Your task to perform on an android device: Open Google Chrome Image 0: 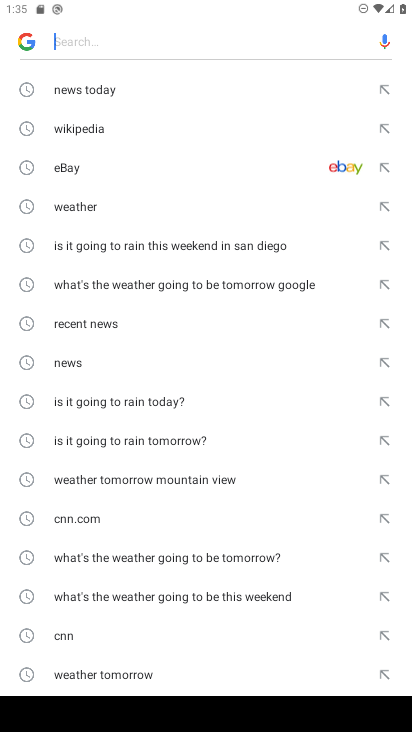
Step 0: press home button
Your task to perform on an android device: Open Google Chrome Image 1: 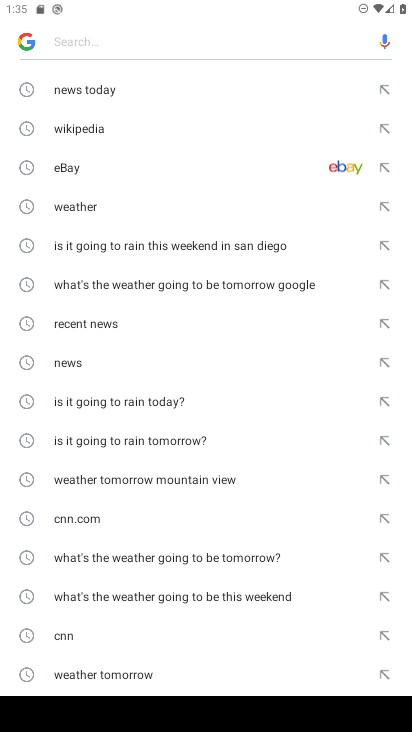
Step 1: press home button
Your task to perform on an android device: Open Google Chrome Image 2: 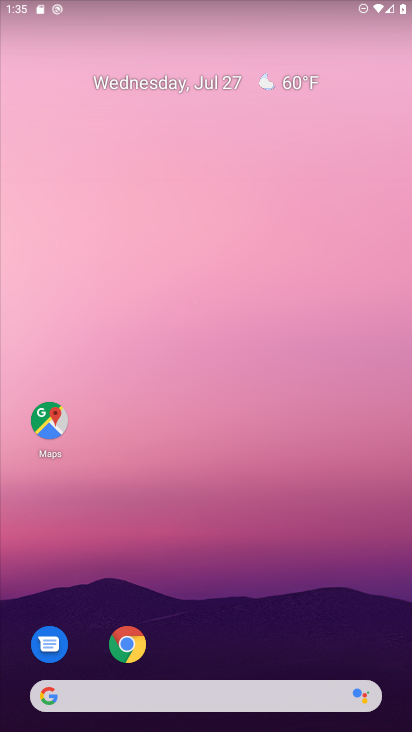
Step 2: click (133, 639)
Your task to perform on an android device: Open Google Chrome Image 3: 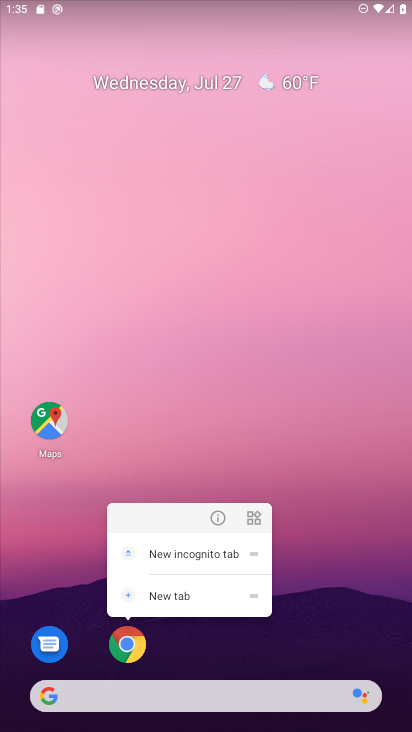
Step 3: click (220, 514)
Your task to perform on an android device: Open Google Chrome Image 4: 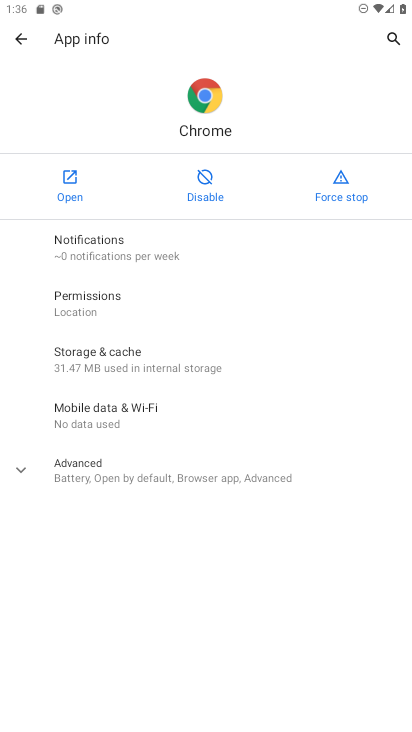
Step 4: click (199, 294)
Your task to perform on an android device: Open Google Chrome Image 5: 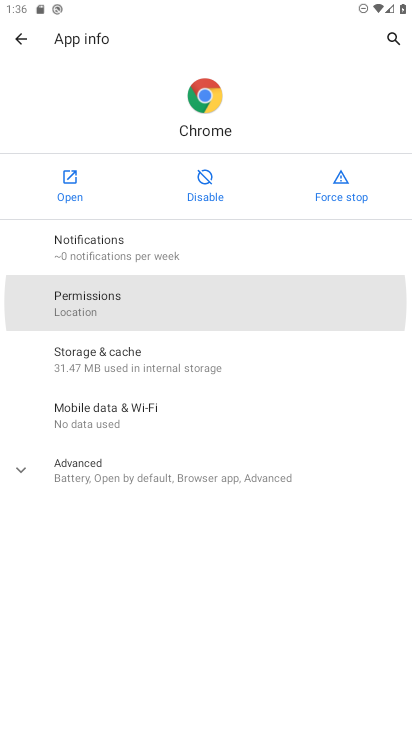
Step 5: click (55, 200)
Your task to perform on an android device: Open Google Chrome Image 6: 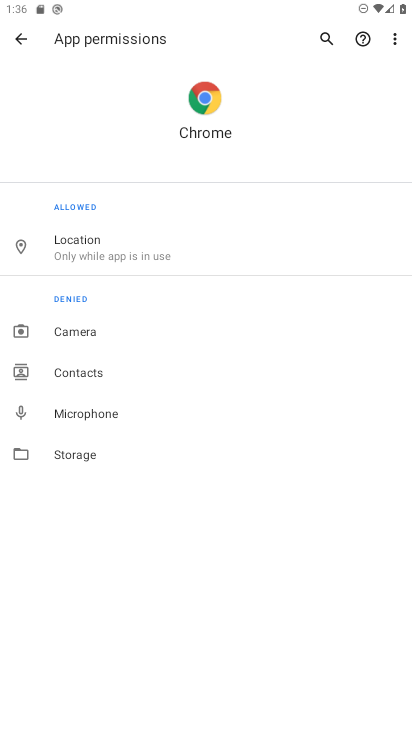
Step 6: click (20, 48)
Your task to perform on an android device: Open Google Chrome Image 7: 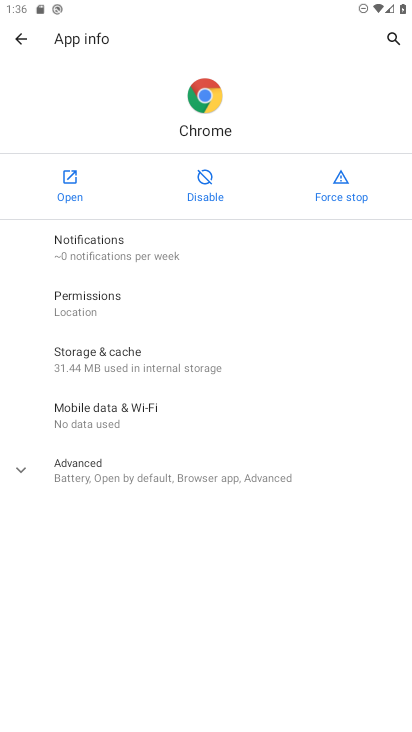
Step 7: click (71, 193)
Your task to perform on an android device: Open Google Chrome Image 8: 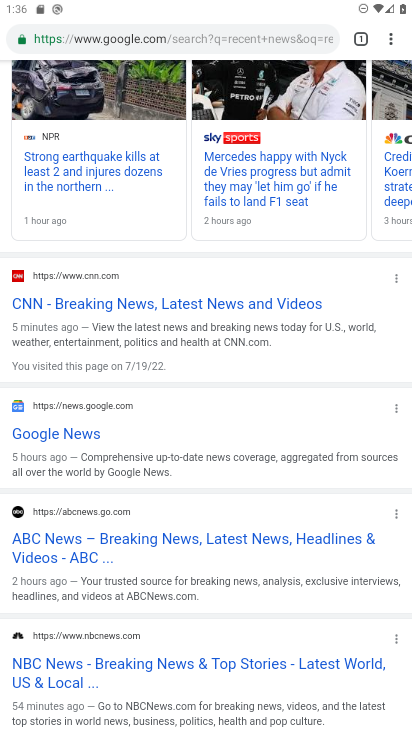
Step 8: task complete